Your task to perform on an android device: read, delete, or share a saved page in the chrome app Image 0: 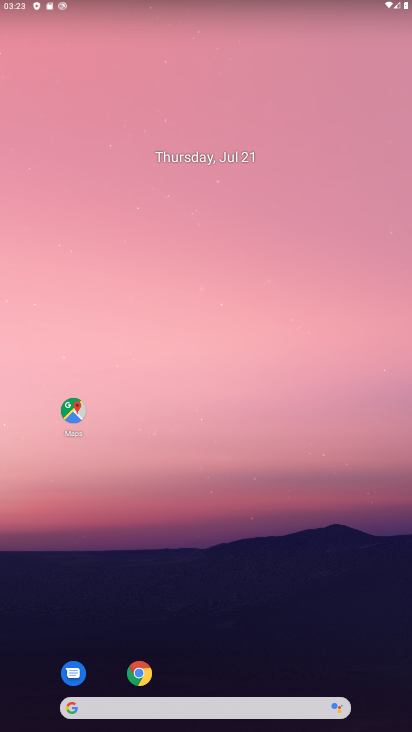
Step 0: click (132, 183)
Your task to perform on an android device: read, delete, or share a saved page in the chrome app Image 1: 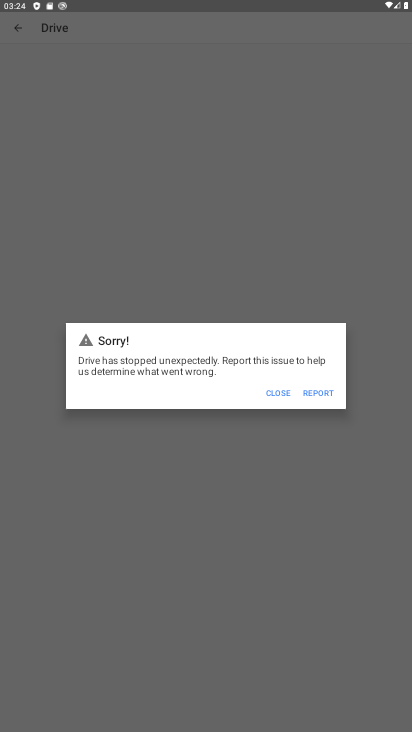
Step 1: press home button
Your task to perform on an android device: read, delete, or share a saved page in the chrome app Image 2: 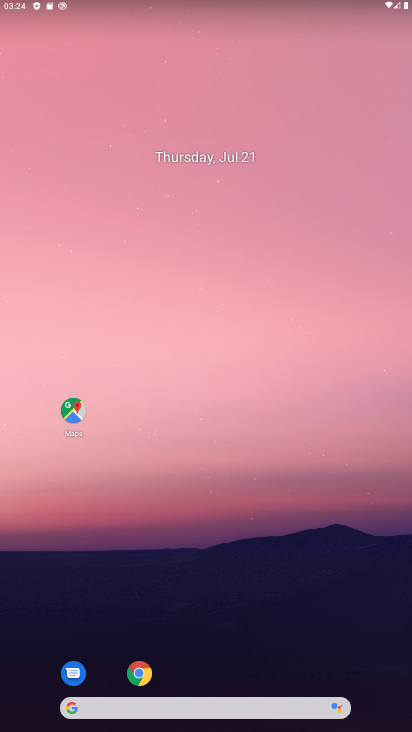
Step 2: drag from (308, 659) to (218, 128)
Your task to perform on an android device: read, delete, or share a saved page in the chrome app Image 3: 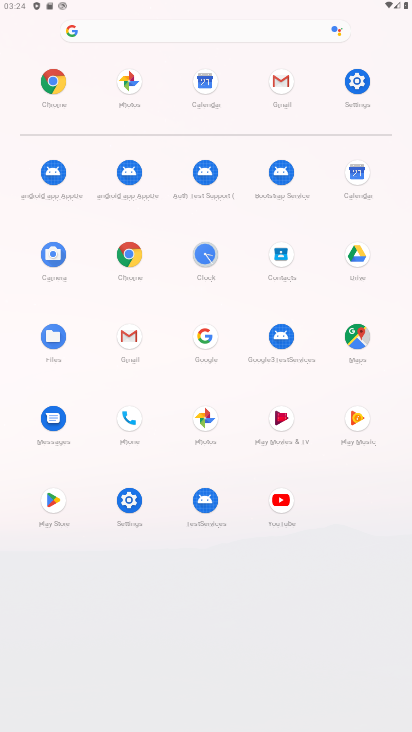
Step 3: click (136, 250)
Your task to perform on an android device: read, delete, or share a saved page in the chrome app Image 4: 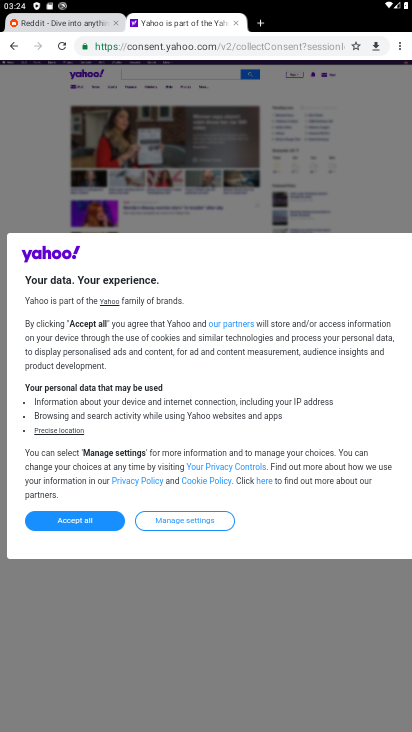
Step 4: task complete